Your task to perform on an android device: add a contact in the contacts app Image 0: 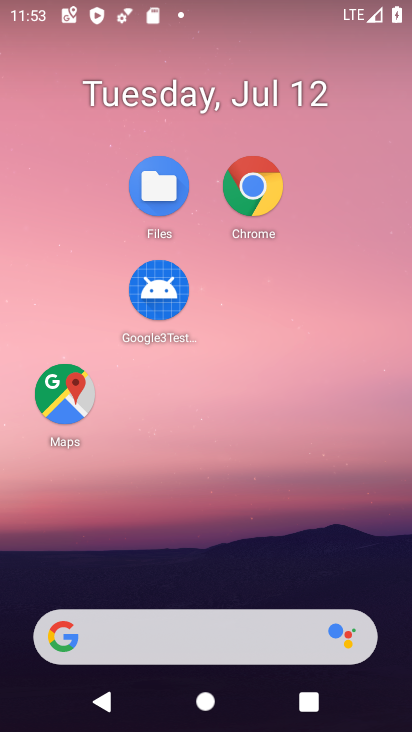
Step 0: drag from (218, 600) to (153, 260)
Your task to perform on an android device: add a contact in the contacts app Image 1: 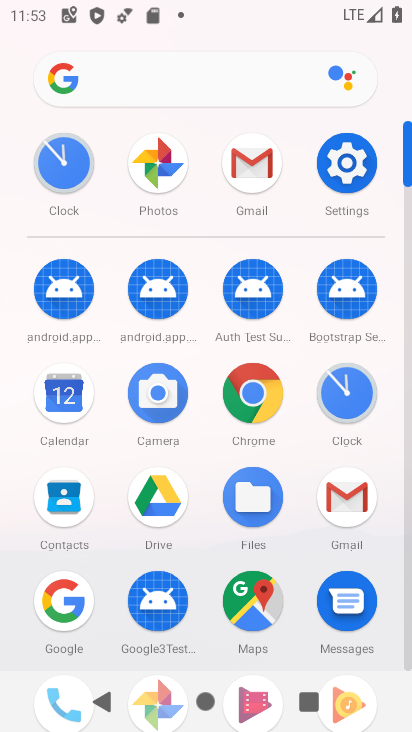
Step 1: drag from (102, 499) to (92, 126)
Your task to perform on an android device: add a contact in the contacts app Image 2: 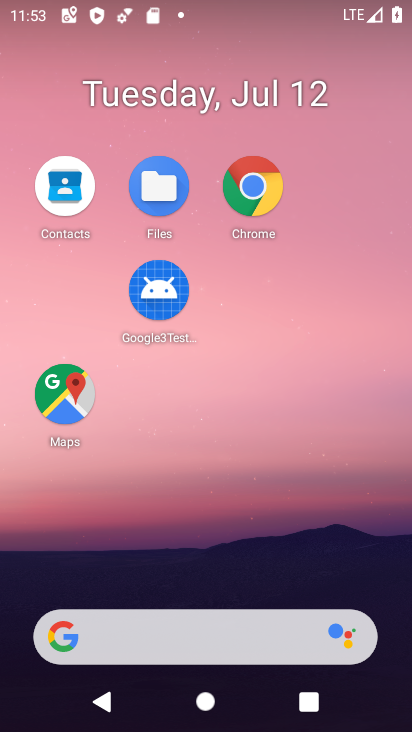
Step 2: click (282, 571)
Your task to perform on an android device: add a contact in the contacts app Image 3: 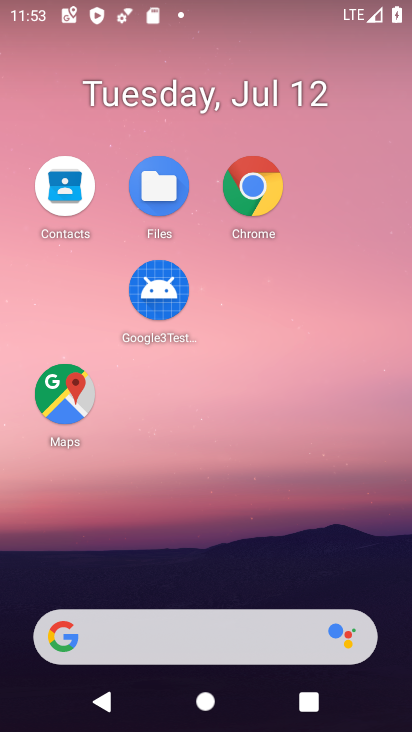
Step 3: drag from (282, 571) to (274, 5)
Your task to perform on an android device: add a contact in the contacts app Image 4: 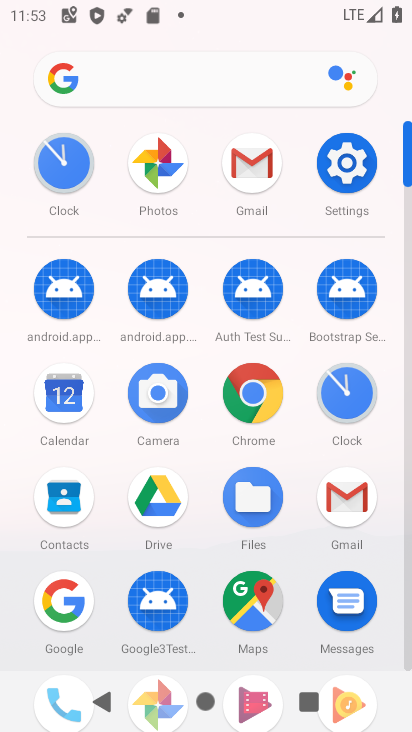
Step 4: drag from (121, 545) to (86, 341)
Your task to perform on an android device: add a contact in the contacts app Image 5: 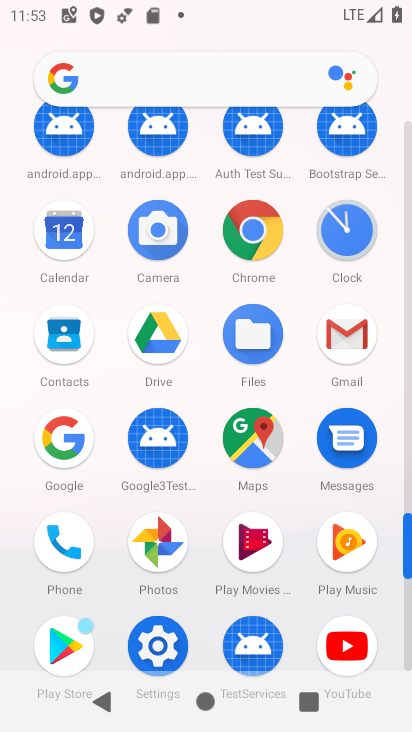
Step 5: click (74, 532)
Your task to perform on an android device: add a contact in the contacts app Image 6: 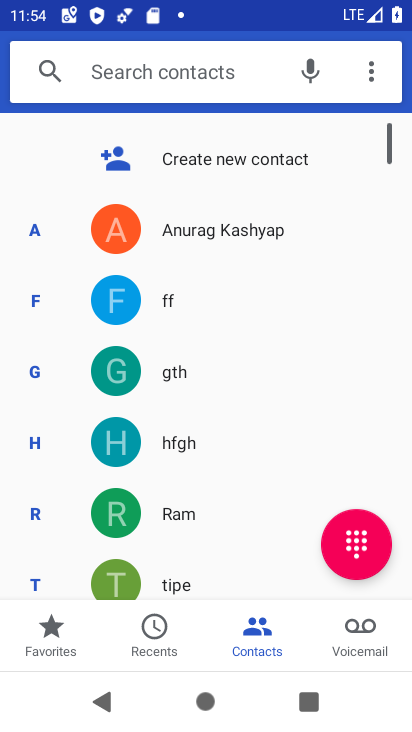
Step 6: click (177, 150)
Your task to perform on an android device: add a contact in the contacts app Image 7: 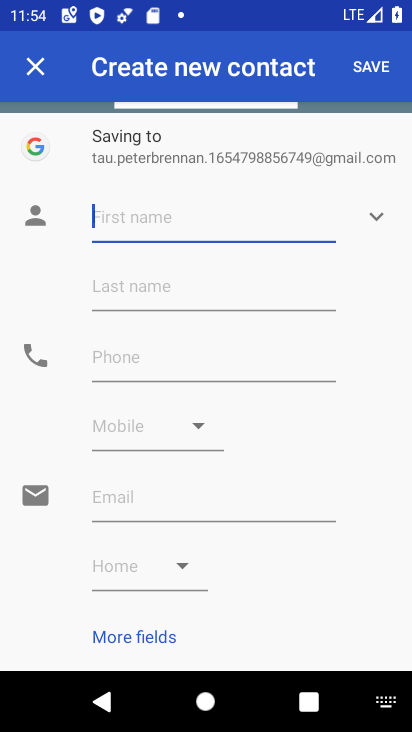
Step 7: type "m m "
Your task to perform on an android device: add a contact in the contacts app Image 8: 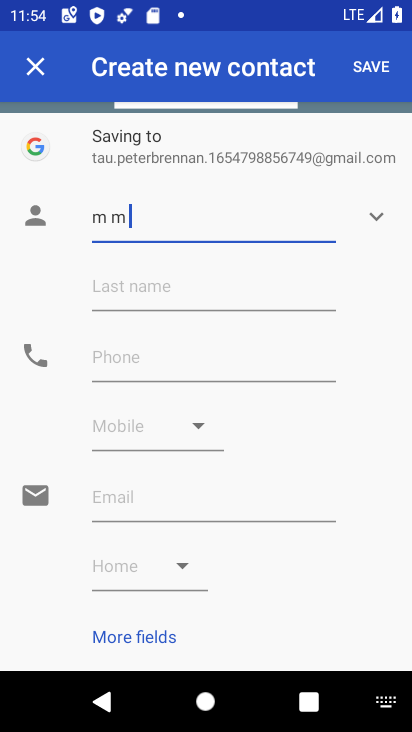
Step 8: click (130, 374)
Your task to perform on an android device: add a contact in the contacts app Image 9: 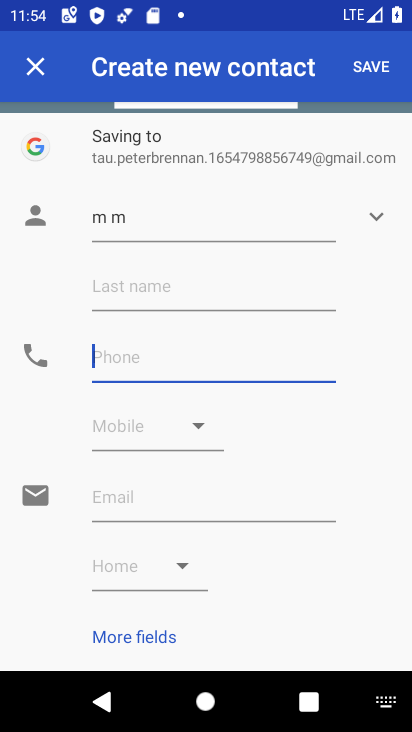
Step 9: type "080"
Your task to perform on an android device: add a contact in the contacts app Image 10: 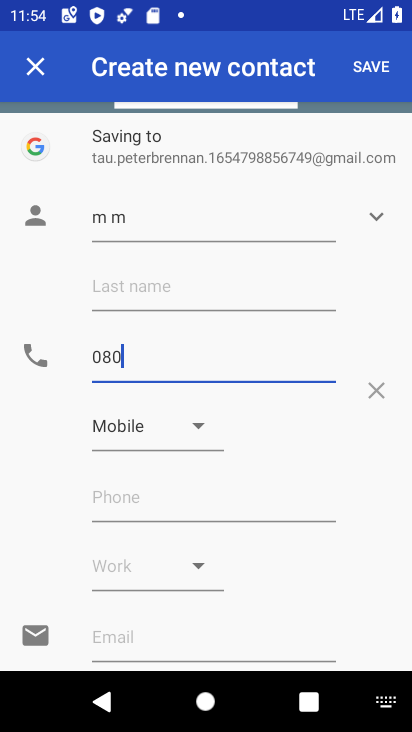
Step 10: click (353, 71)
Your task to perform on an android device: add a contact in the contacts app Image 11: 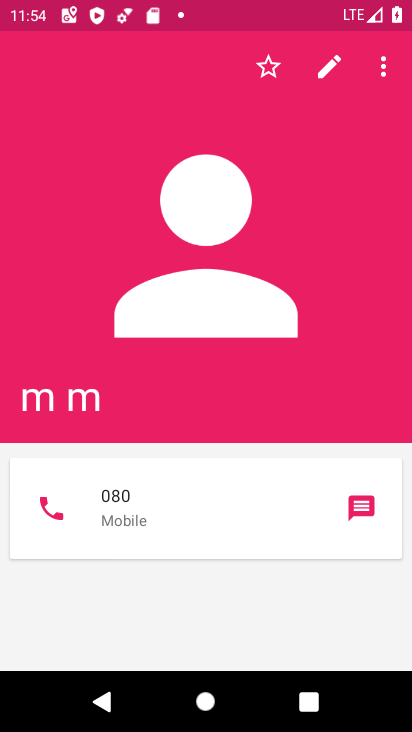
Step 11: task complete